Your task to perform on an android device: Open calendar and show me the second week of next month Image 0: 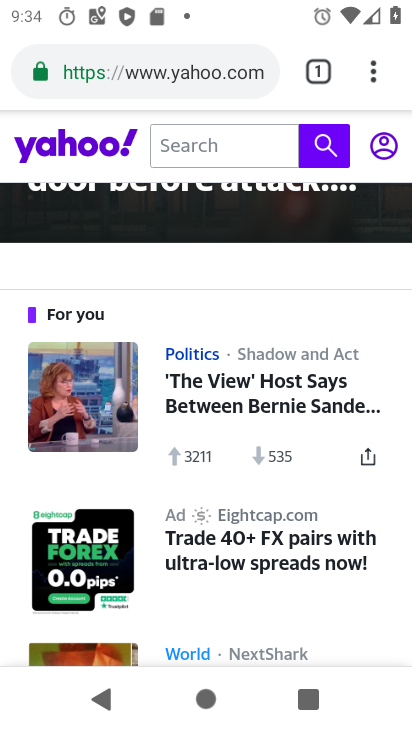
Step 0: press home button
Your task to perform on an android device: Open calendar and show me the second week of next month Image 1: 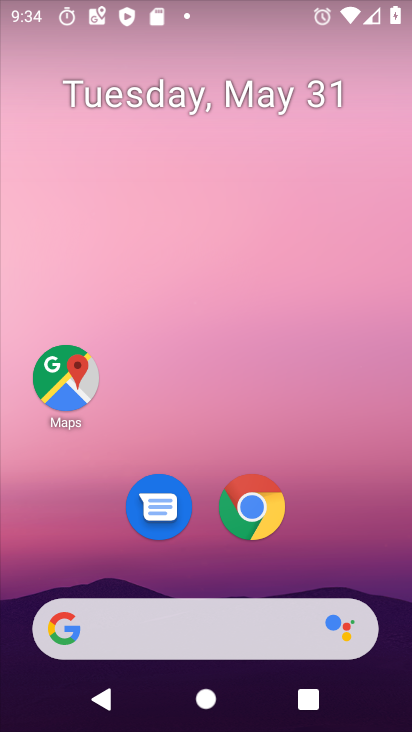
Step 1: drag from (356, 574) to (351, 2)
Your task to perform on an android device: Open calendar and show me the second week of next month Image 2: 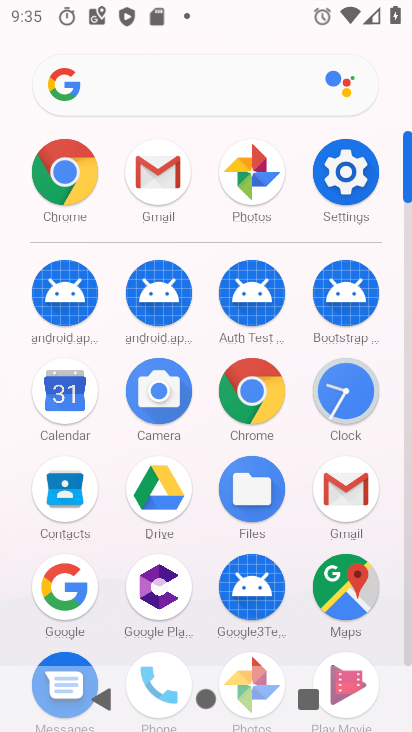
Step 2: click (69, 392)
Your task to perform on an android device: Open calendar and show me the second week of next month Image 3: 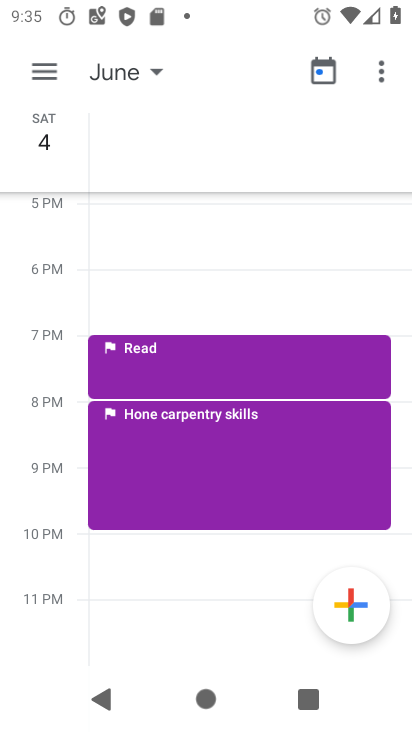
Step 3: click (32, 75)
Your task to perform on an android device: Open calendar and show me the second week of next month Image 4: 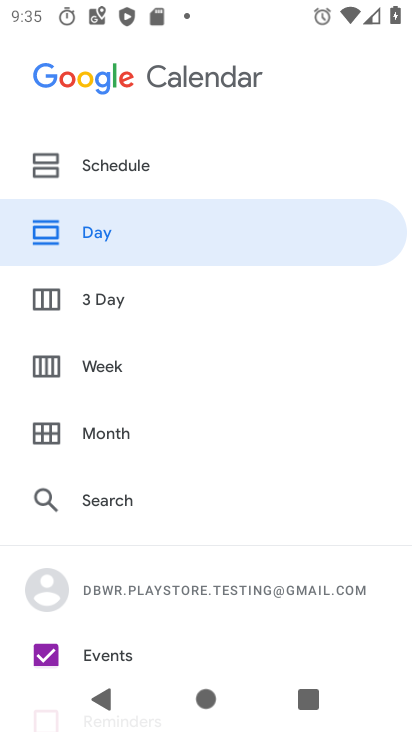
Step 4: click (87, 368)
Your task to perform on an android device: Open calendar and show me the second week of next month Image 5: 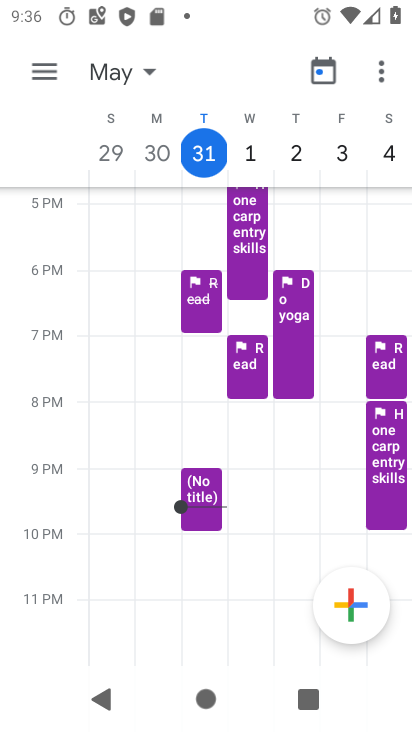
Step 5: task complete